Your task to perform on an android device: turn on data saver in the chrome app Image 0: 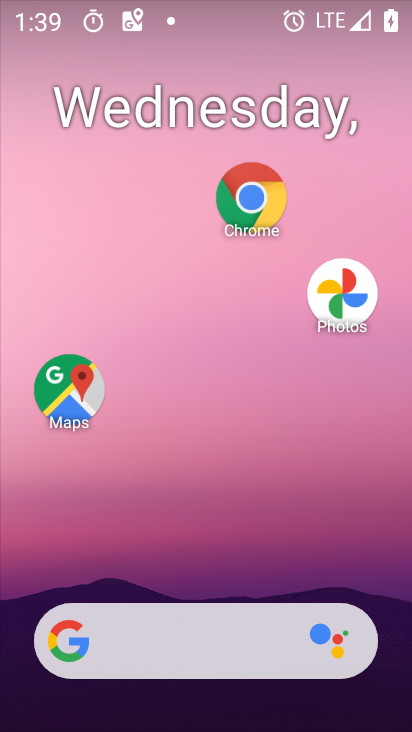
Step 0: click (265, 208)
Your task to perform on an android device: turn on data saver in the chrome app Image 1: 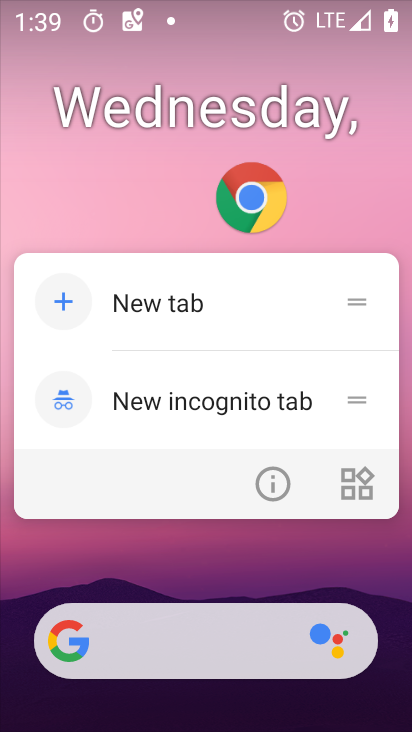
Step 1: click (265, 208)
Your task to perform on an android device: turn on data saver in the chrome app Image 2: 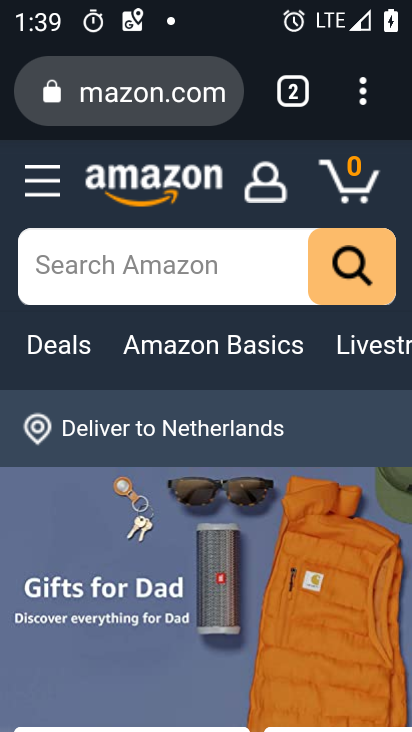
Step 2: click (365, 102)
Your task to perform on an android device: turn on data saver in the chrome app Image 3: 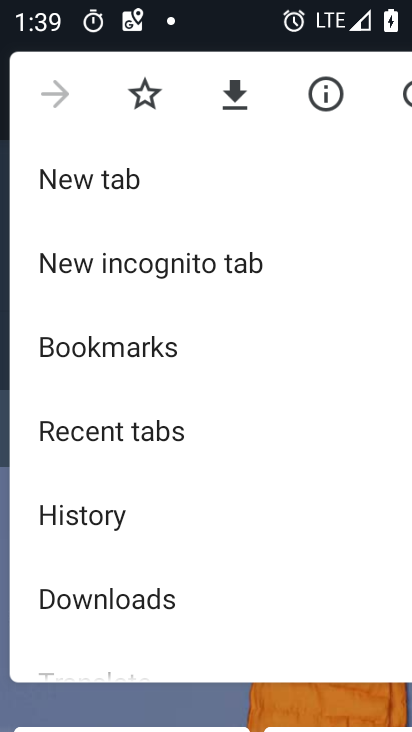
Step 3: drag from (89, 530) to (181, 228)
Your task to perform on an android device: turn on data saver in the chrome app Image 4: 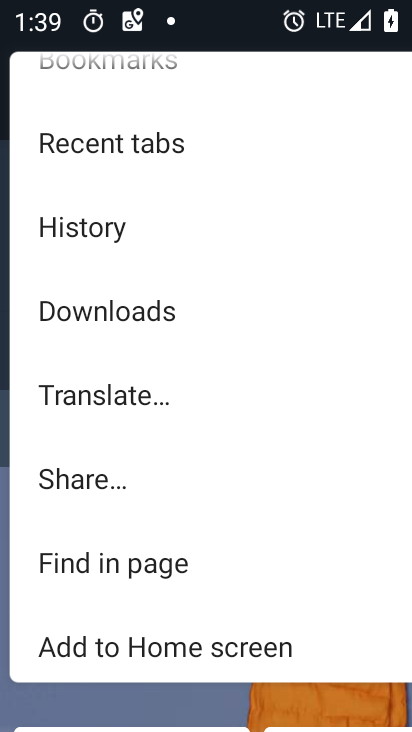
Step 4: drag from (88, 544) to (191, 272)
Your task to perform on an android device: turn on data saver in the chrome app Image 5: 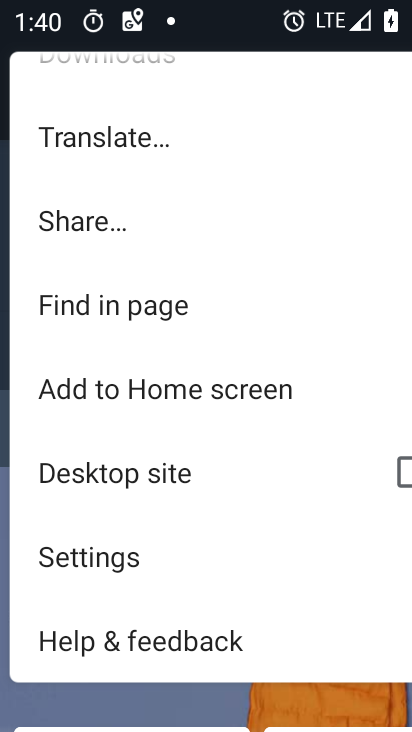
Step 5: click (128, 565)
Your task to perform on an android device: turn on data saver in the chrome app Image 6: 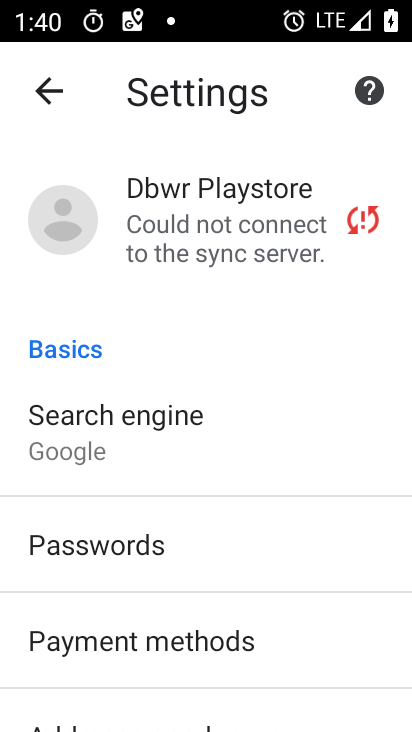
Step 6: drag from (227, 592) to (249, 198)
Your task to perform on an android device: turn on data saver in the chrome app Image 7: 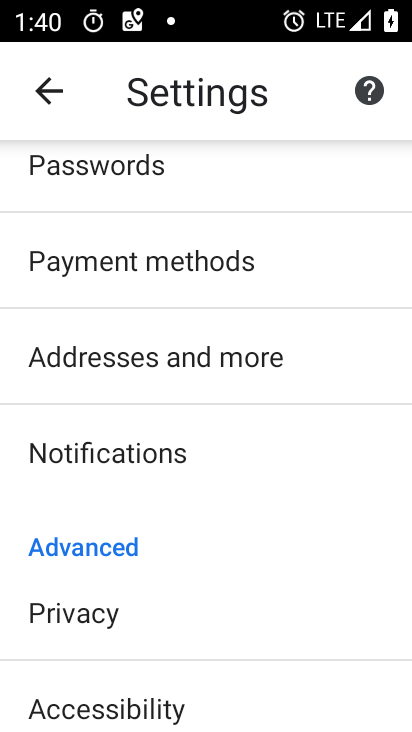
Step 7: drag from (216, 581) to (259, 235)
Your task to perform on an android device: turn on data saver in the chrome app Image 8: 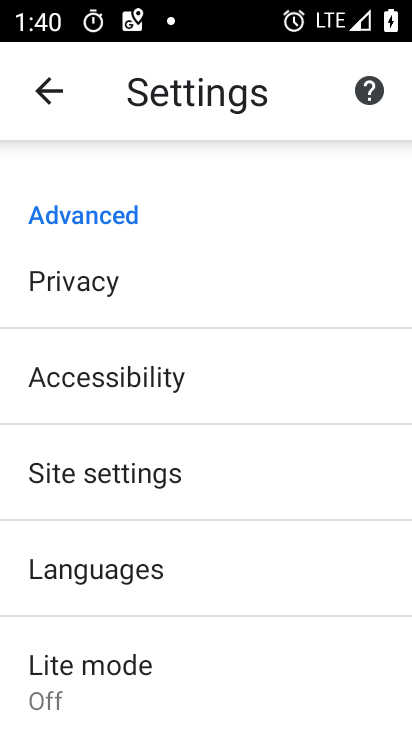
Step 8: drag from (167, 592) to (227, 262)
Your task to perform on an android device: turn on data saver in the chrome app Image 9: 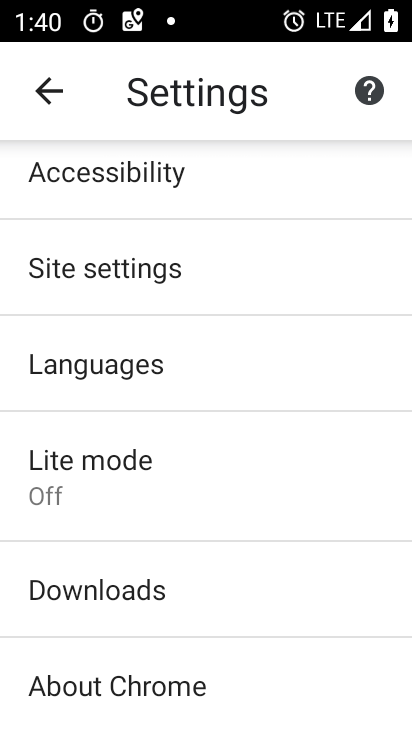
Step 9: click (170, 489)
Your task to perform on an android device: turn on data saver in the chrome app Image 10: 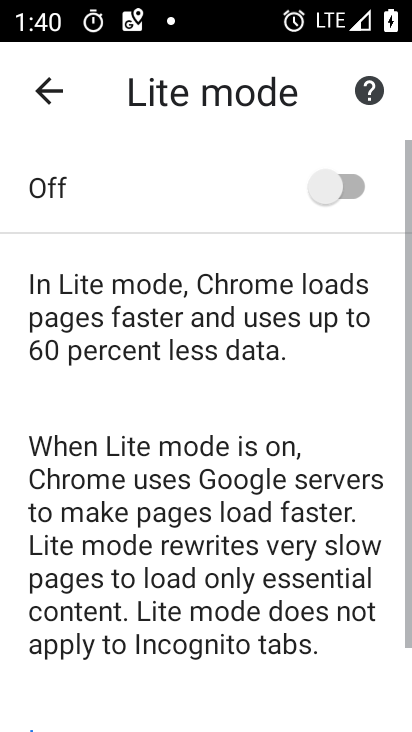
Step 10: click (344, 185)
Your task to perform on an android device: turn on data saver in the chrome app Image 11: 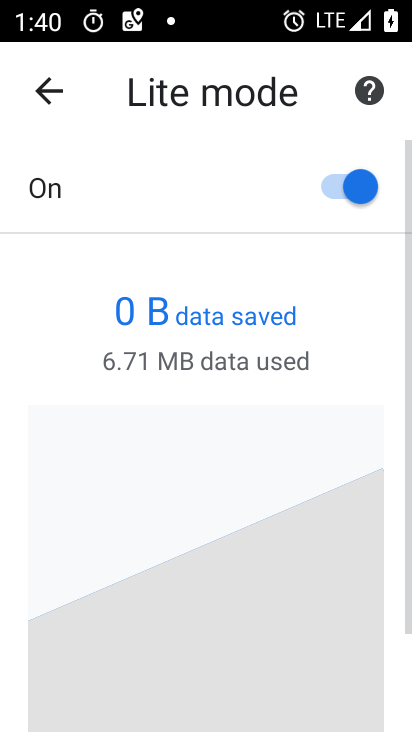
Step 11: task complete